Your task to perform on an android device: Open CNN.com Image 0: 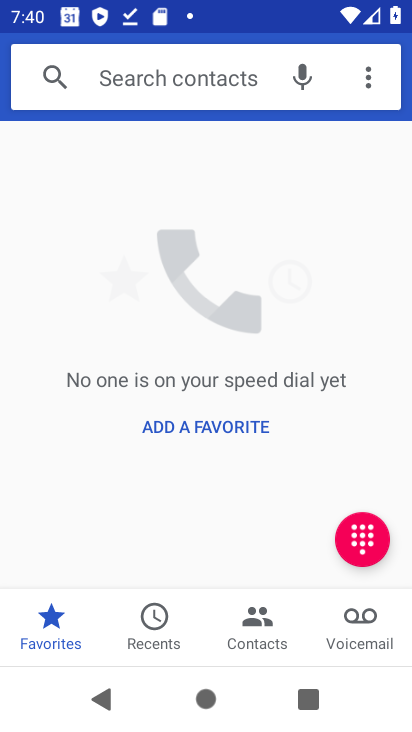
Step 0: press home button
Your task to perform on an android device: Open CNN.com Image 1: 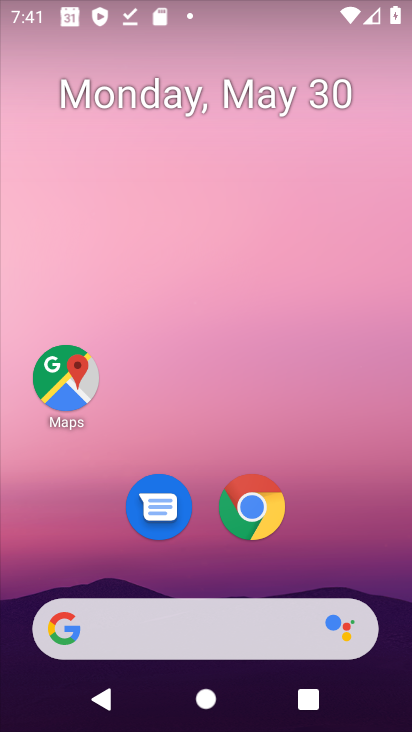
Step 1: click (278, 505)
Your task to perform on an android device: Open CNN.com Image 2: 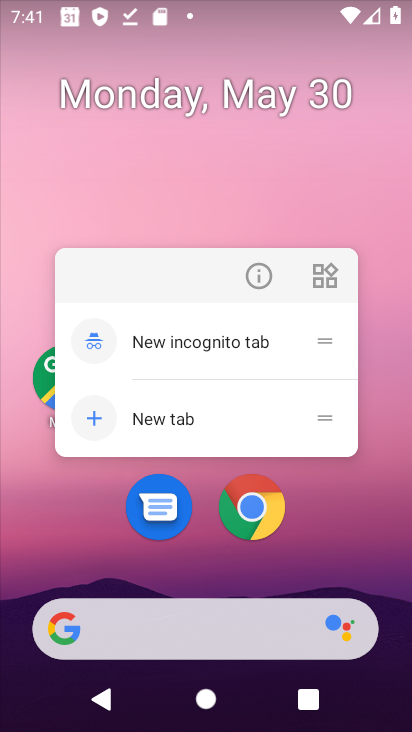
Step 2: click (275, 507)
Your task to perform on an android device: Open CNN.com Image 3: 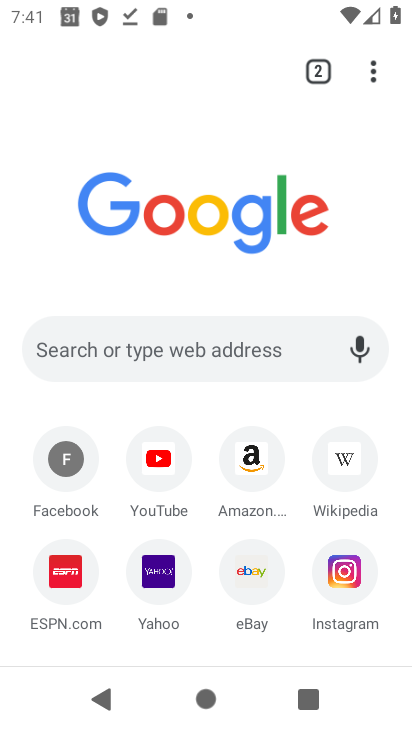
Step 3: click (153, 356)
Your task to perform on an android device: Open CNN.com Image 4: 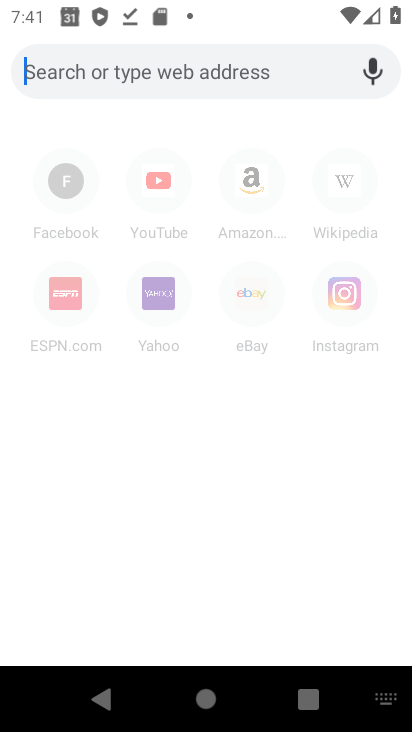
Step 4: type "cnn.com"
Your task to perform on an android device: Open CNN.com Image 5: 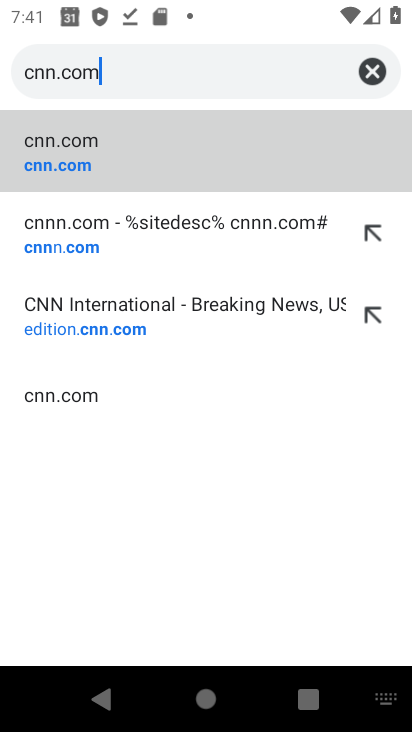
Step 5: click (122, 178)
Your task to perform on an android device: Open CNN.com Image 6: 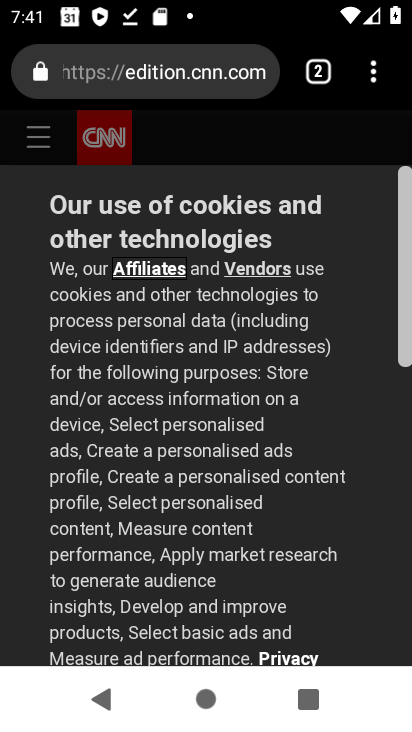
Step 6: task complete